Your task to perform on an android device: turn notification dots on Image 0: 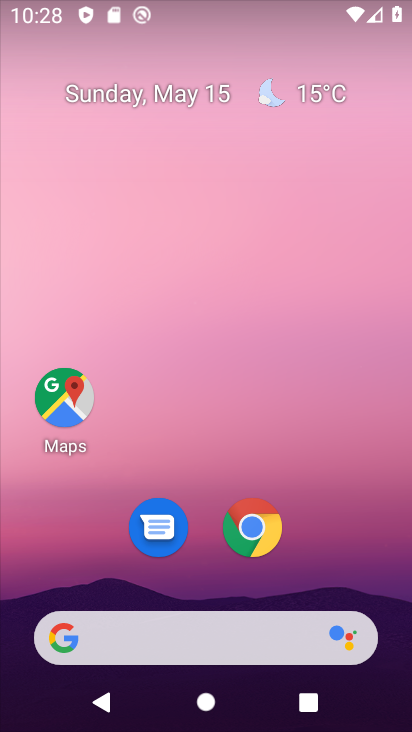
Step 0: drag from (345, 544) to (252, 52)
Your task to perform on an android device: turn notification dots on Image 1: 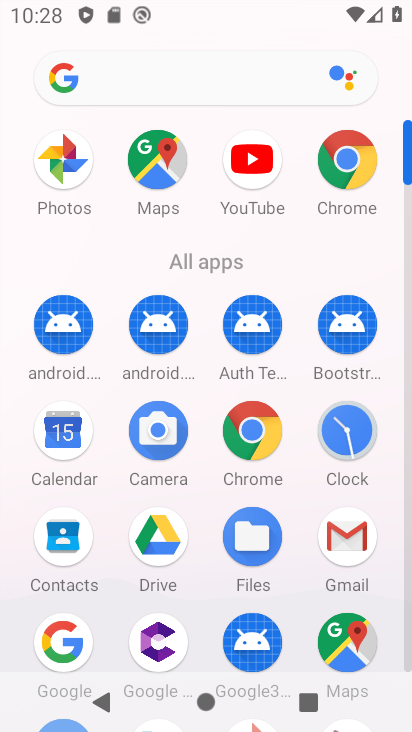
Step 1: drag from (207, 519) to (200, 268)
Your task to perform on an android device: turn notification dots on Image 2: 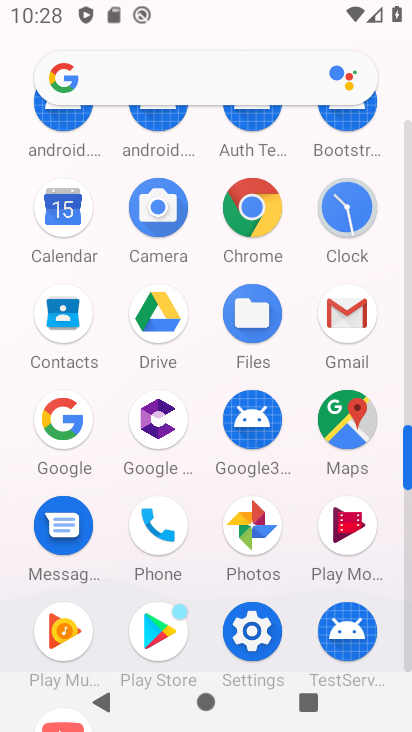
Step 2: click (253, 632)
Your task to perform on an android device: turn notification dots on Image 3: 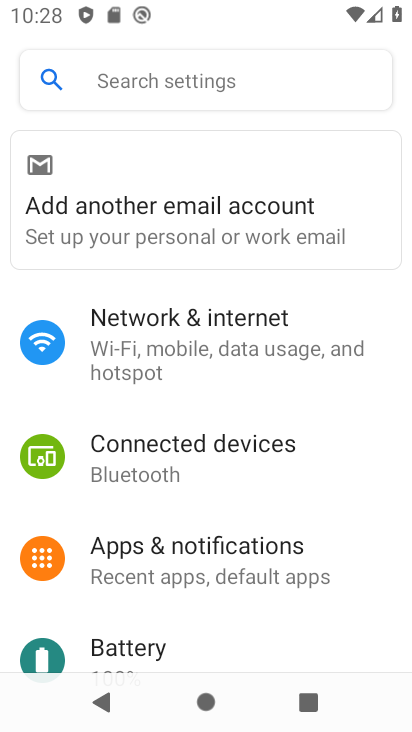
Step 3: click (195, 552)
Your task to perform on an android device: turn notification dots on Image 4: 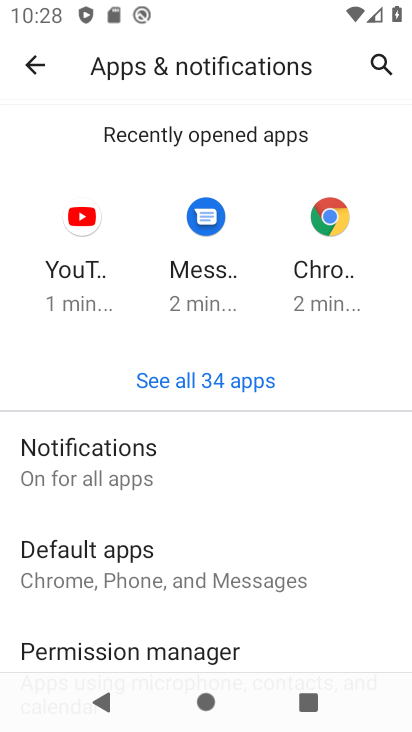
Step 4: click (104, 454)
Your task to perform on an android device: turn notification dots on Image 5: 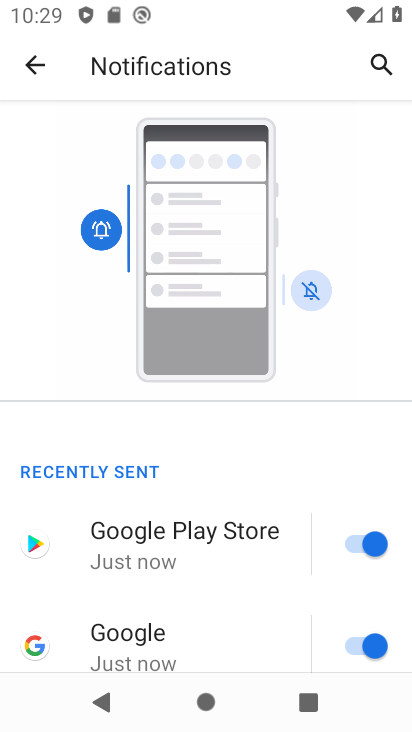
Step 5: drag from (203, 607) to (265, 335)
Your task to perform on an android device: turn notification dots on Image 6: 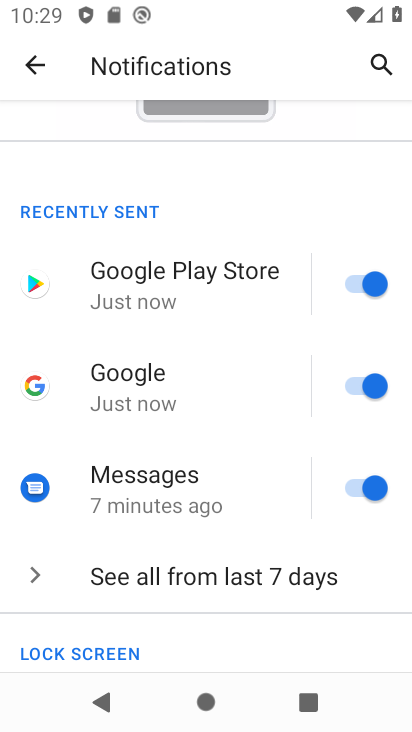
Step 6: drag from (171, 629) to (240, 376)
Your task to perform on an android device: turn notification dots on Image 7: 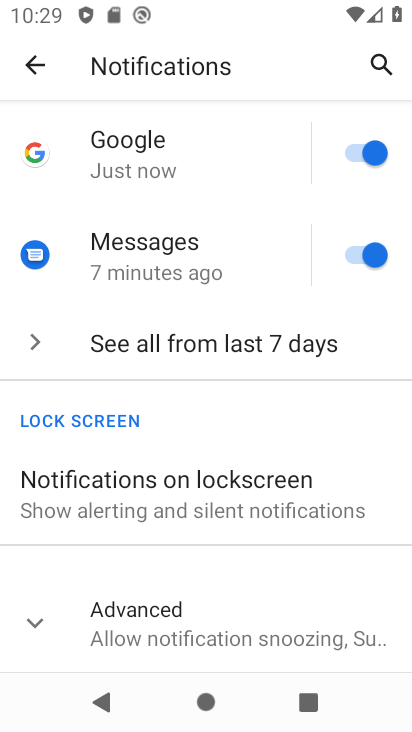
Step 7: click (184, 633)
Your task to perform on an android device: turn notification dots on Image 8: 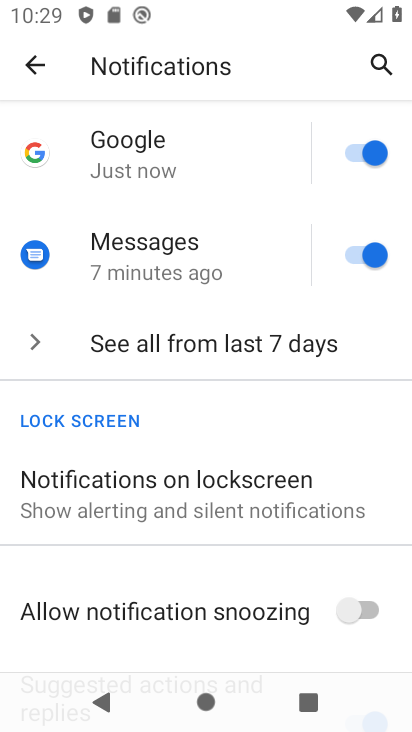
Step 8: task complete